Your task to perform on an android device: turn on airplane mode Image 0: 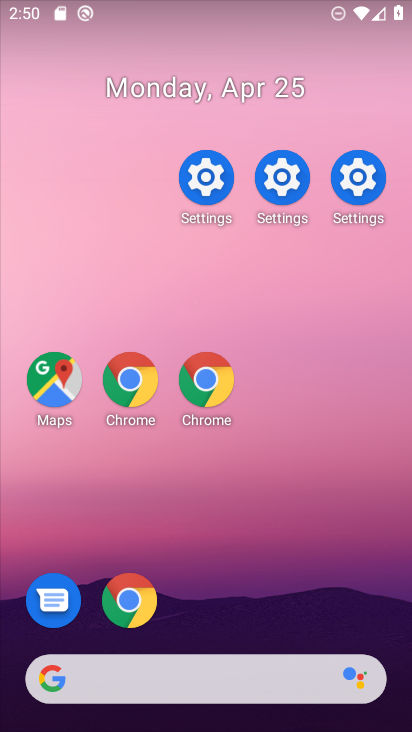
Step 0: drag from (285, 682) to (212, 79)
Your task to perform on an android device: turn on airplane mode Image 1: 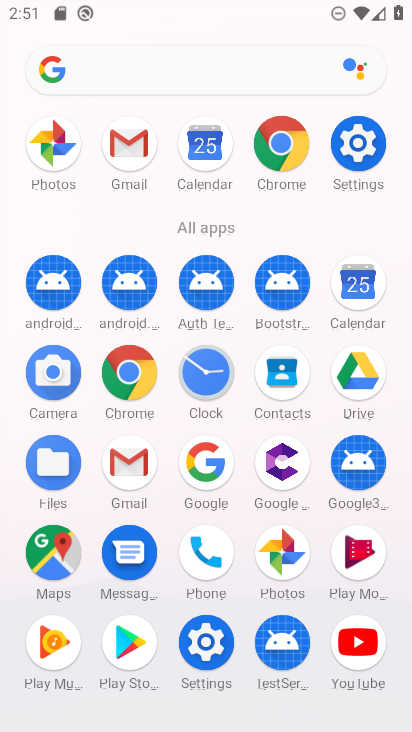
Step 1: click (362, 138)
Your task to perform on an android device: turn on airplane mode Image 2: 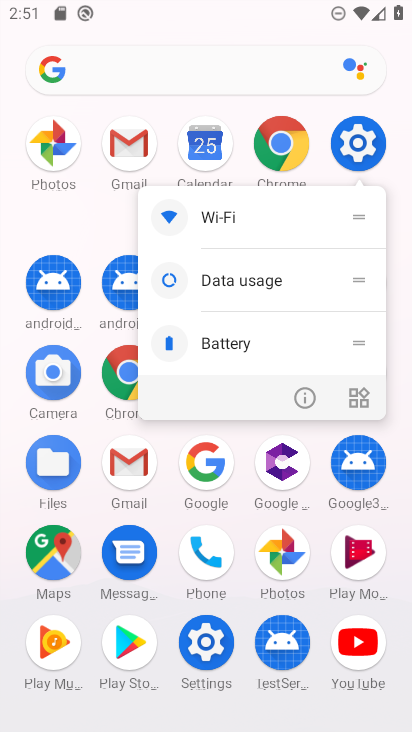
Step 2: click (99, 209)
Your task to perform on an android device: turn on airplane mode Image 3: 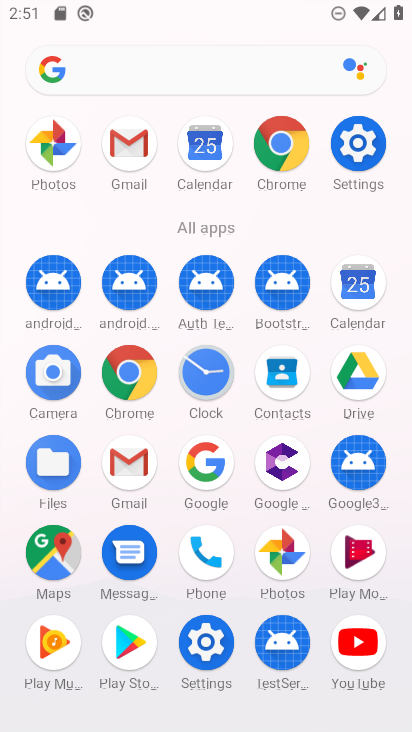
Step 3: click (98, 212)
Your task to perform on an android device: turn on airplane mode Image 4: 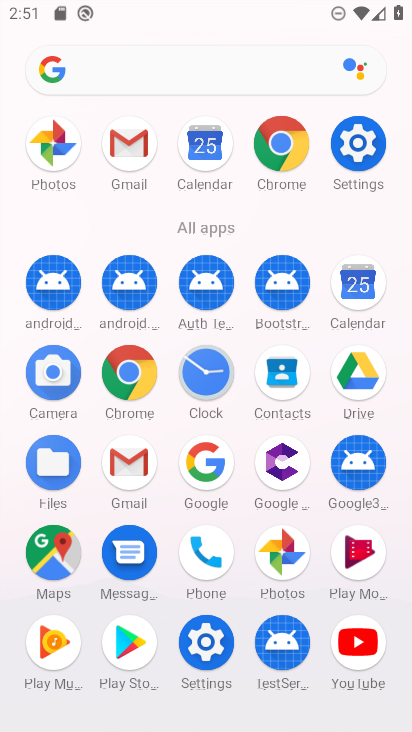
Step 4: click (354, 158)
Your task to perform on an android device: turn on airplane mode Image 5: 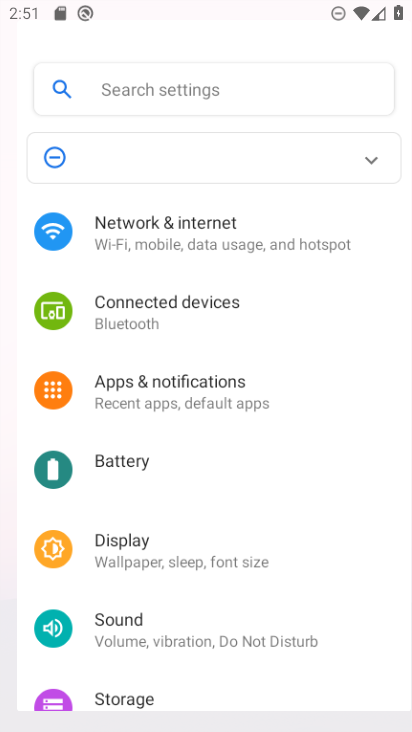
Step 5: click (349, 161)
Your task to perform on an android device: turn on airplane mode Image 6: 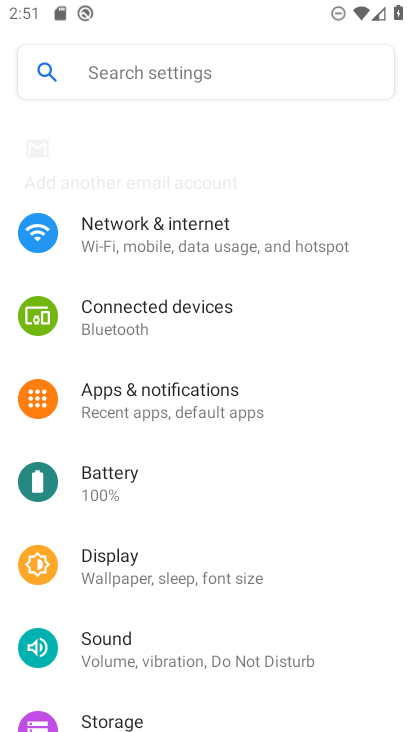
Step 6: click (349, 161)
Your task to perform on an android device: turn on airplane mode Image 7: 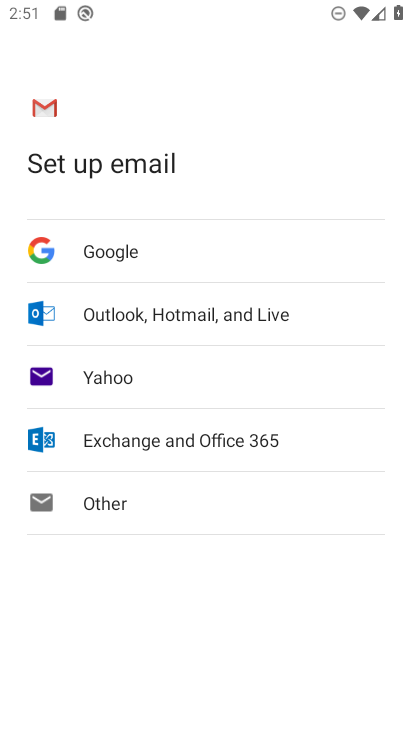
Step 7: press home button
Your task to perform on an android device: turn on airplane mode Image 8: 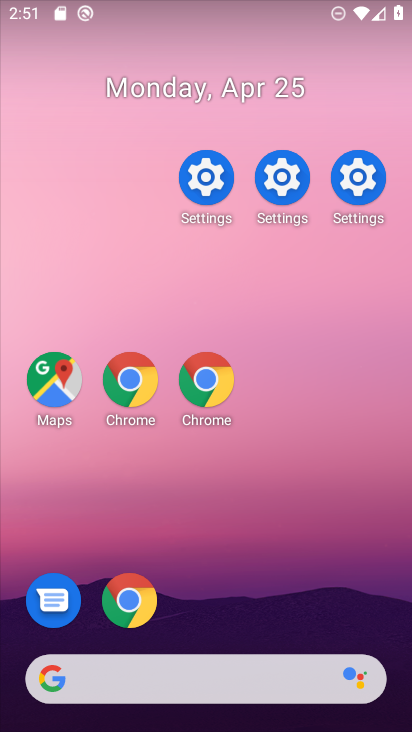
Step 8: drag from (232, 615) to (135, 66)
Your task to perform on an android device: turn on airplane mode Image 9: 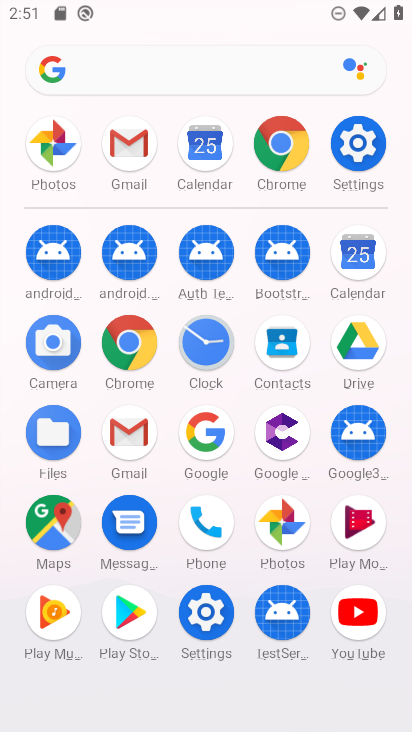
Step 9: click (361, 143)
Your task to perform on an android device: turn on airplane mode Image 10: 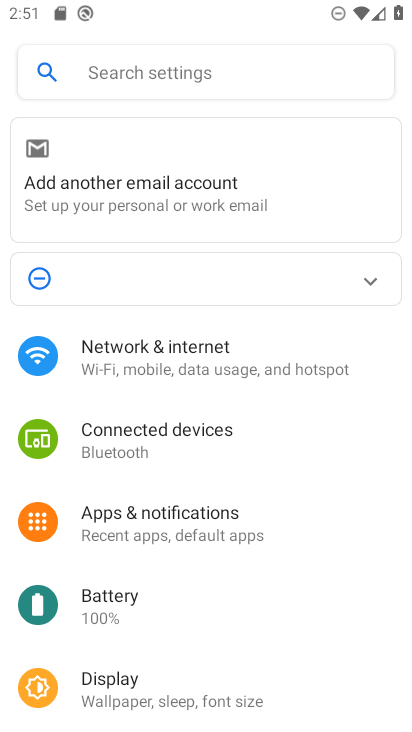
Step 10: click (168, 369)
Your task to perform on an android device: turn on airplane mode Image 11: 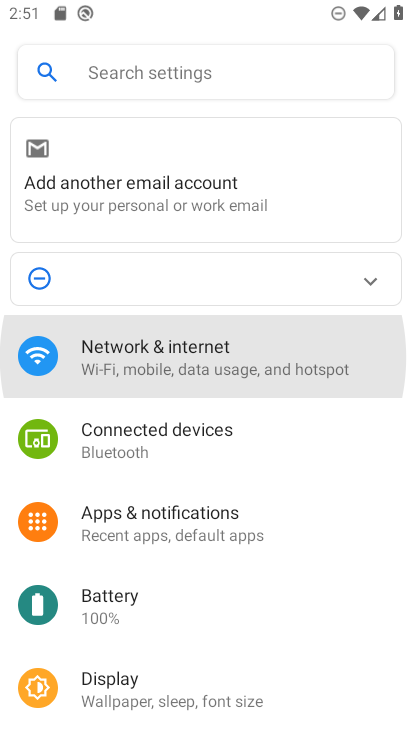
Step 11: click (169, 356)
Your task to perform on an android device: turn on airplane mode Image 12: 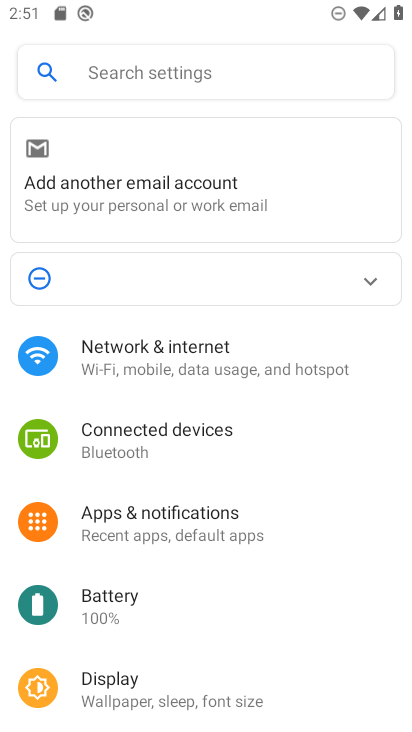
Step 12: click (170, 355)
Your task to perform on an android device: turn on airplane mode Image 13: 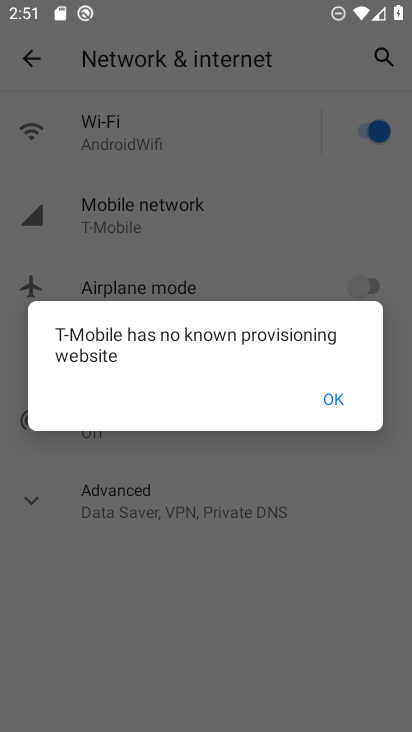
Step 13: click (328, 401)
Your task to perform on an android device: turn on airplane mode Image 14: 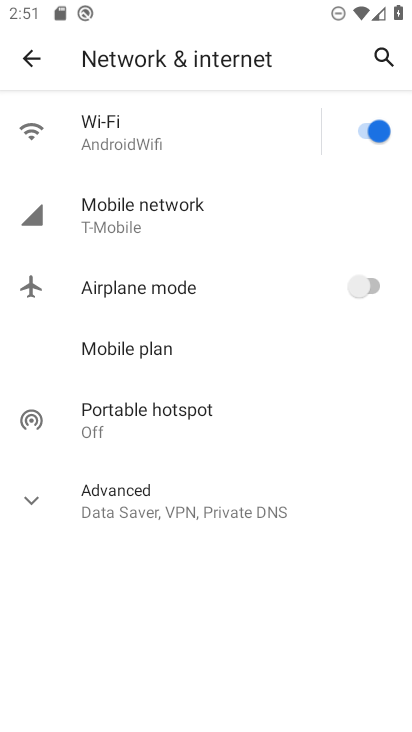
Step 14: click (358, 293)
Your task to perform on an android device: turn on airplane mode Image 15: 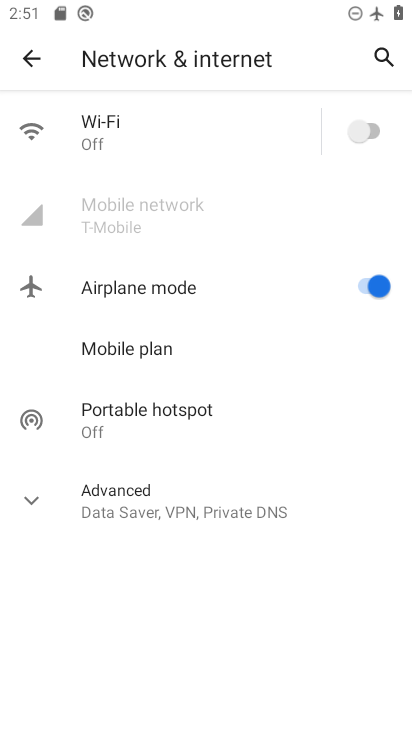
Step 15: task complete